Your task to perform on an android device: What's the weather today? Image 0: 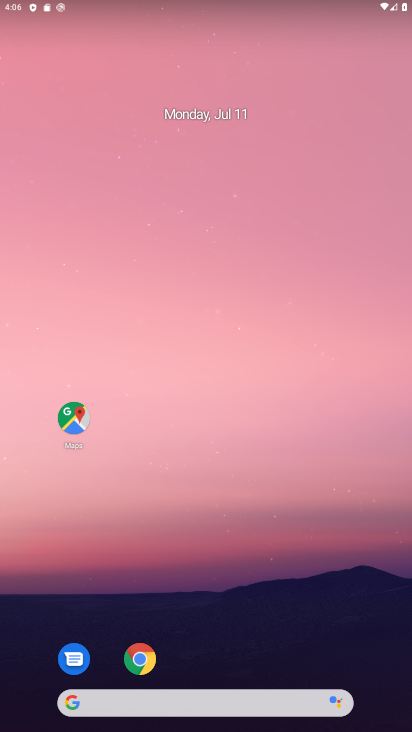
Step 0: click (224, 694)
Your task to perform on an android device: What's the weather today? Image 1: 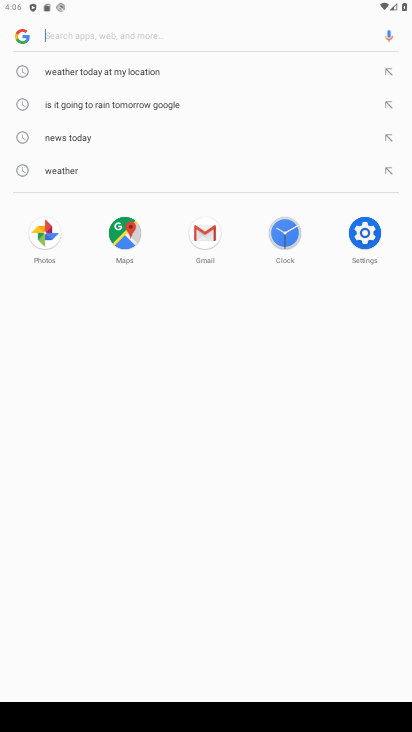
Step 1: click (66, 177)
Your task to perform on an android device: What's the weather today? Image 2: 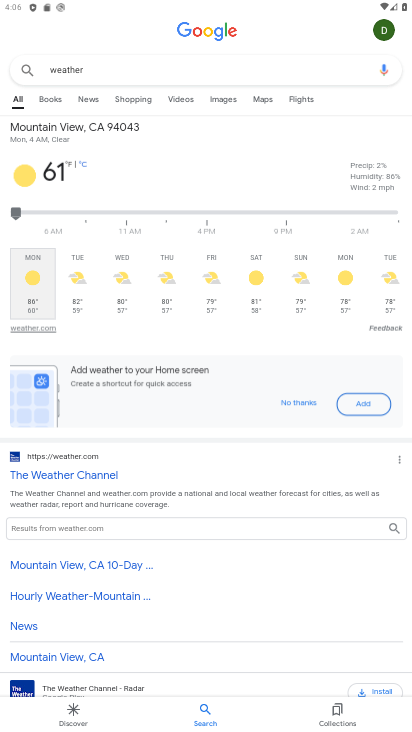
Step 2: task complete